Your task to perform on an android device: Go to location settings Image 0: 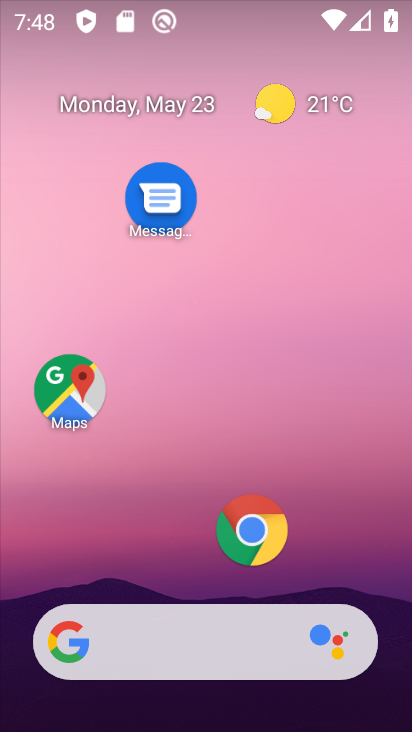
Step 0: drag from (164, 546) to (233, 68)
Your task to perform on an android device: Go to location settings Image 1: 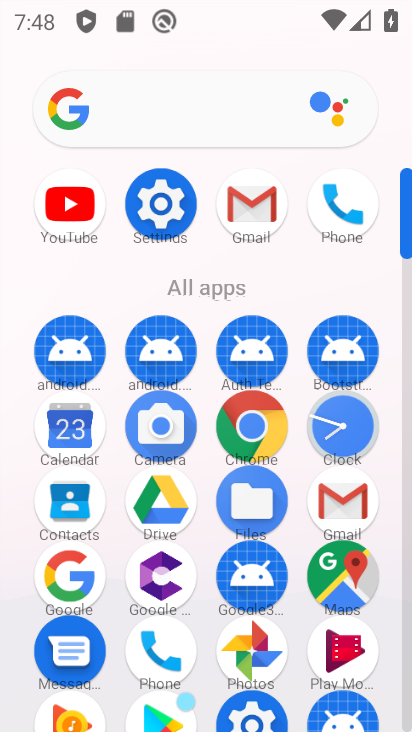
Step 1: click (158, 195)
Your task to perform on an android device: Go to location settings Image 2: 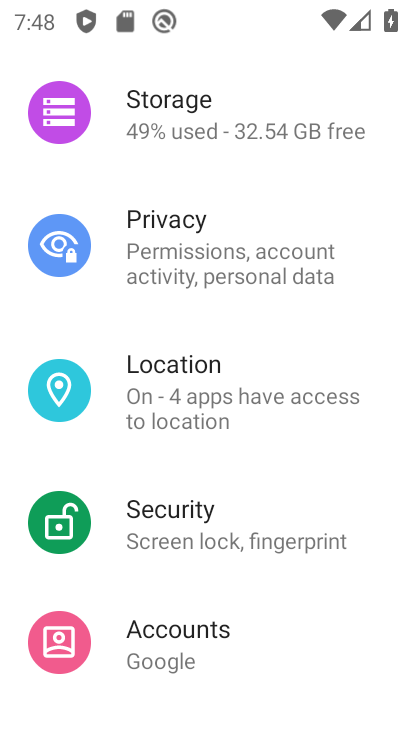
Step 2: click (166, 360)
Your task to perform on an android device: Go to location settings Image 3: 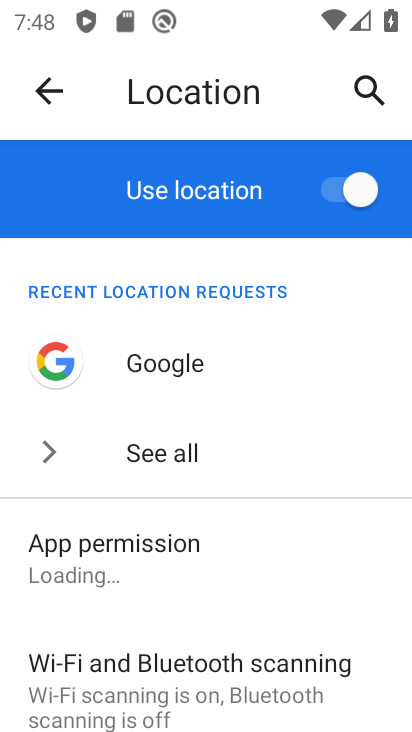
Step 3: click (171, 458)
Your task to perform on an android device: Go to location settings Image 4: 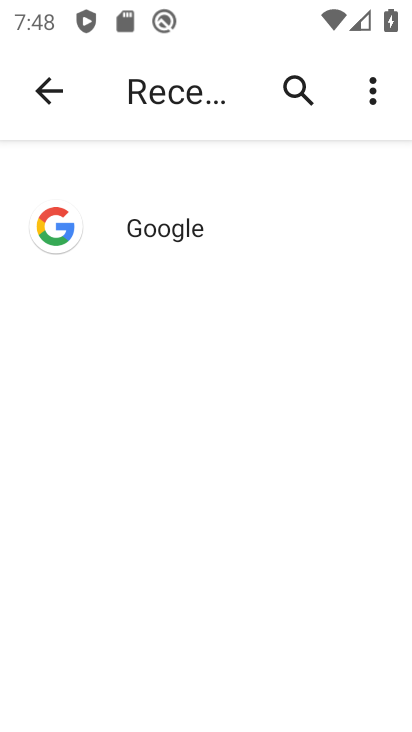
Step 4: task complete